Your task to perform on an android device: show emergency info Image 0: 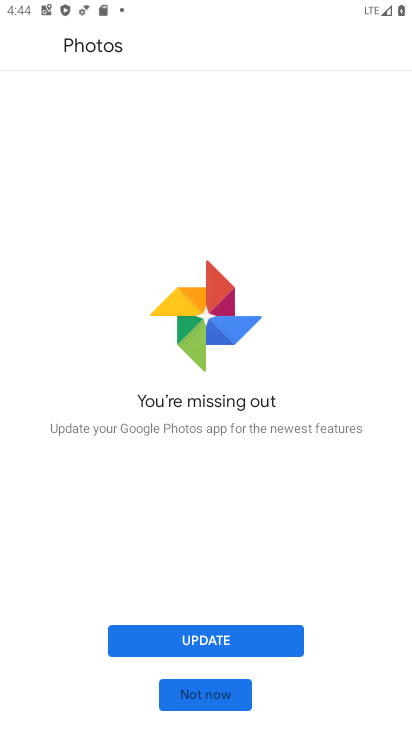
Step 0: press home button
Your task to perform on an android device: show emergency info Image 1: 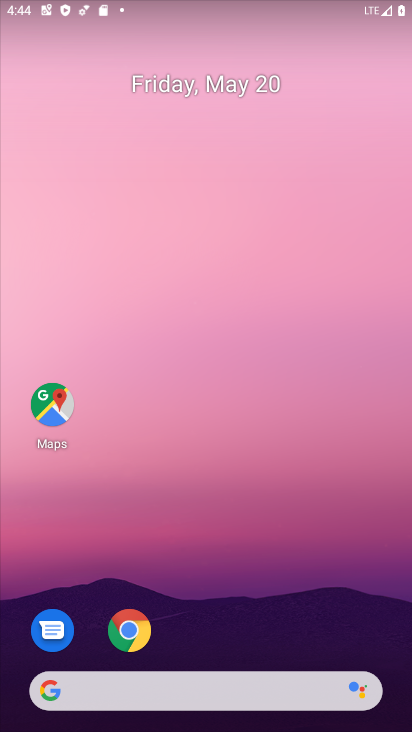
Step 1: drag from (232, 541) to (257, 14)
Your task to perform on an android device: show emergency info Image 2: 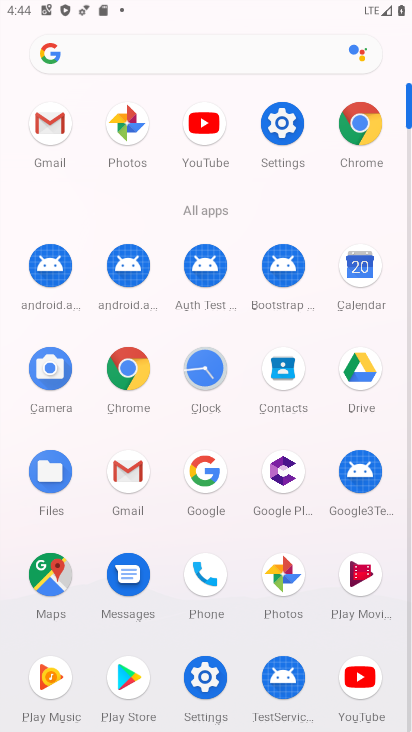
Step 2: click (275, 130)
Your task to perform on an android device: show emergency info Image 3: 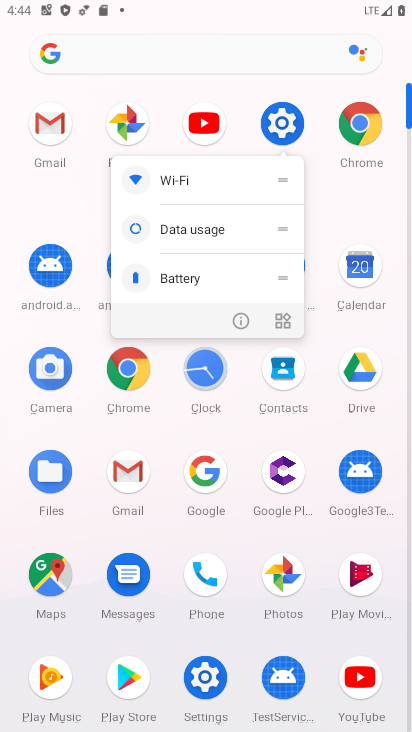
Step 3: click (276, 121)
Your task to perform on an android device: show emergency info Image 4: 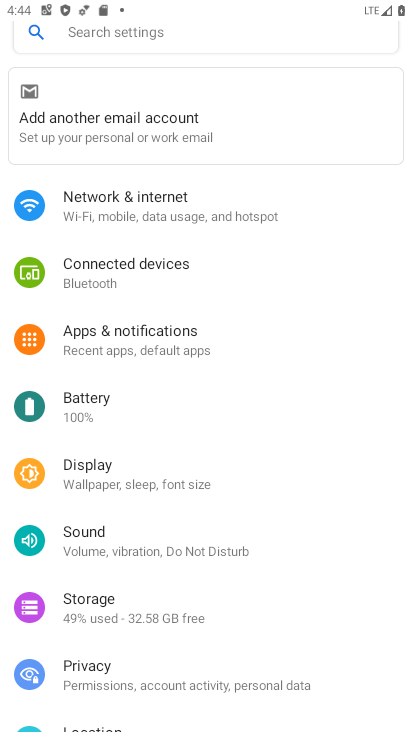
Step 4: drag from (247, 541) to (246, 125)
Your task to perform on an android device: show emergency info Image 5: 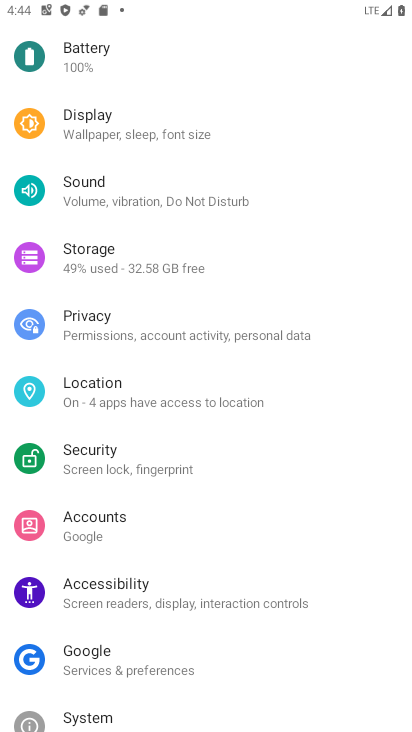
Step 5: drag from (251, 555) to (240, 213)
Your task to perform on an android device: show emergency info Image 6: 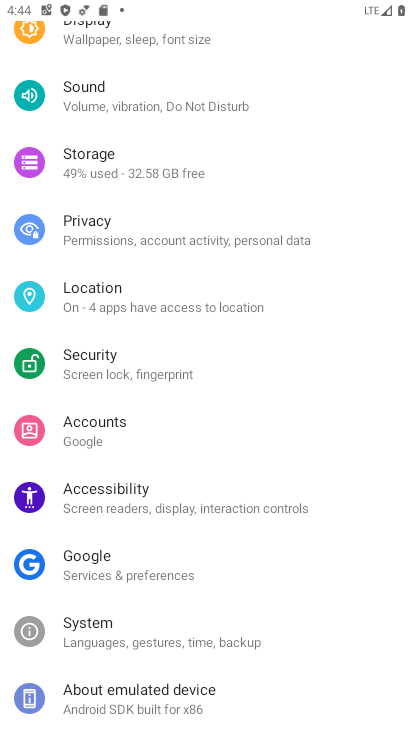
Step 6: click (187, 702)
Your task to perform on an android device: show emergency info Image 7: 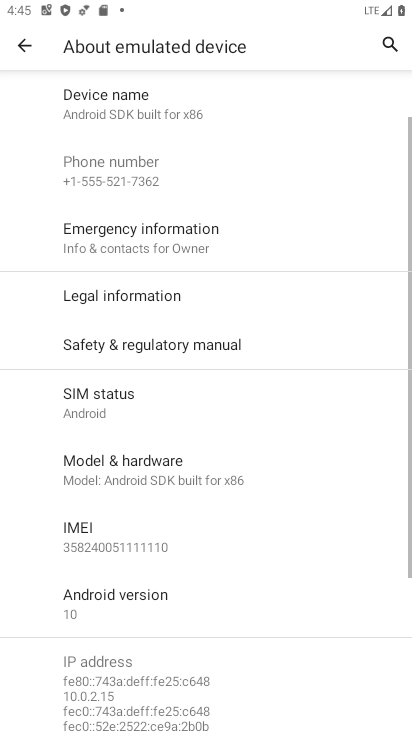
Step 7: click (200, 238)
Your task to perform on an android device: show emergency info Image 8: 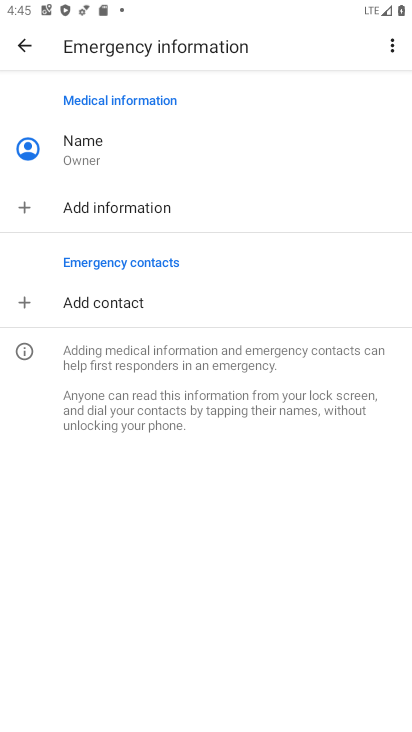
Step 8: task complete